Your task to perform on an android device: Open calendar and show me the second week of next month Image 0: 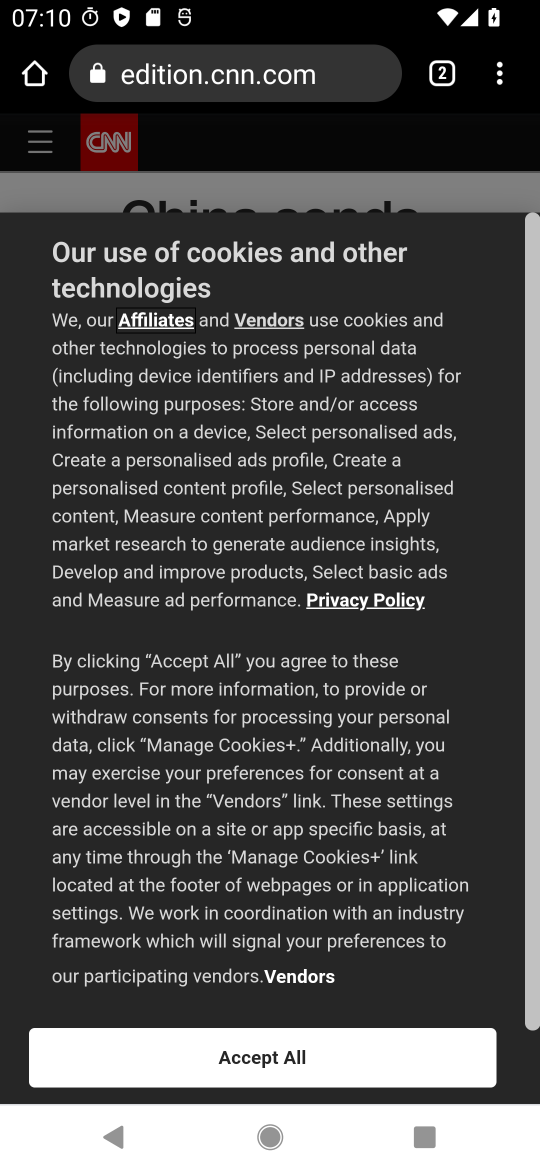
Step 0: press home button
Your task to perform on an android device: Open calendar and show me the second week of next month Image 1: 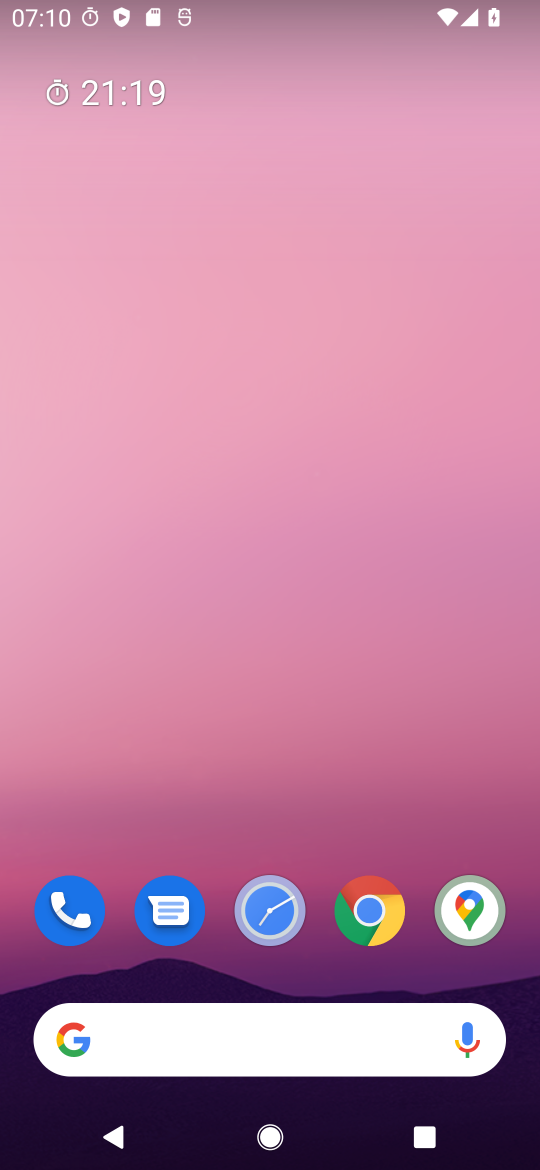
Step 1: drag from (271, 1062) to (374, 7)
Your task to perform on an android device: Open calendar and show me the second week of next month Image 2: 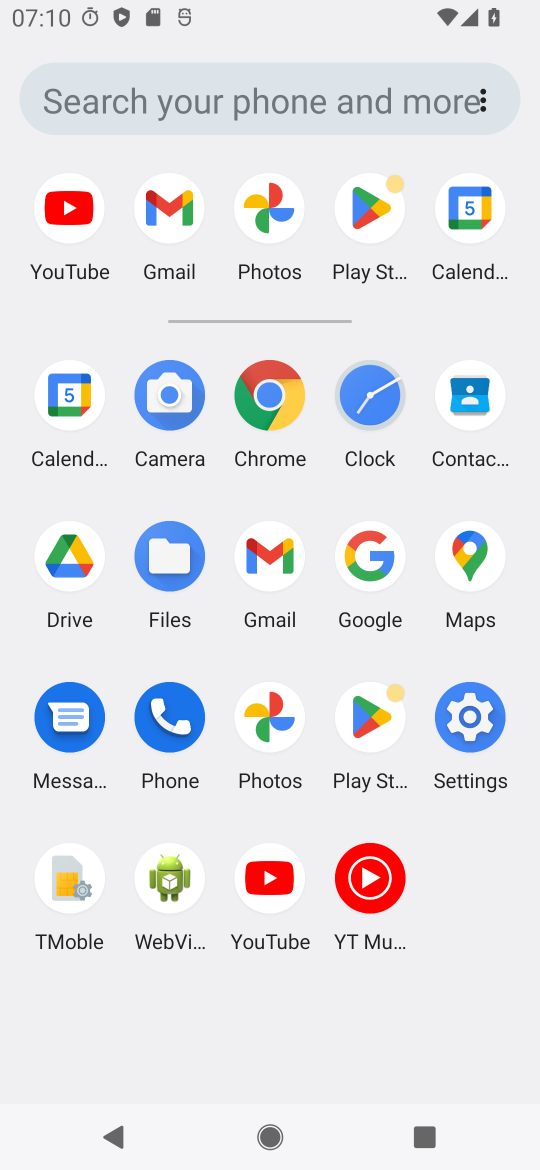
Step 2: click (464, 218)
Your task to perform on an android device: Open calendar and show me the second week of next month Image 3: 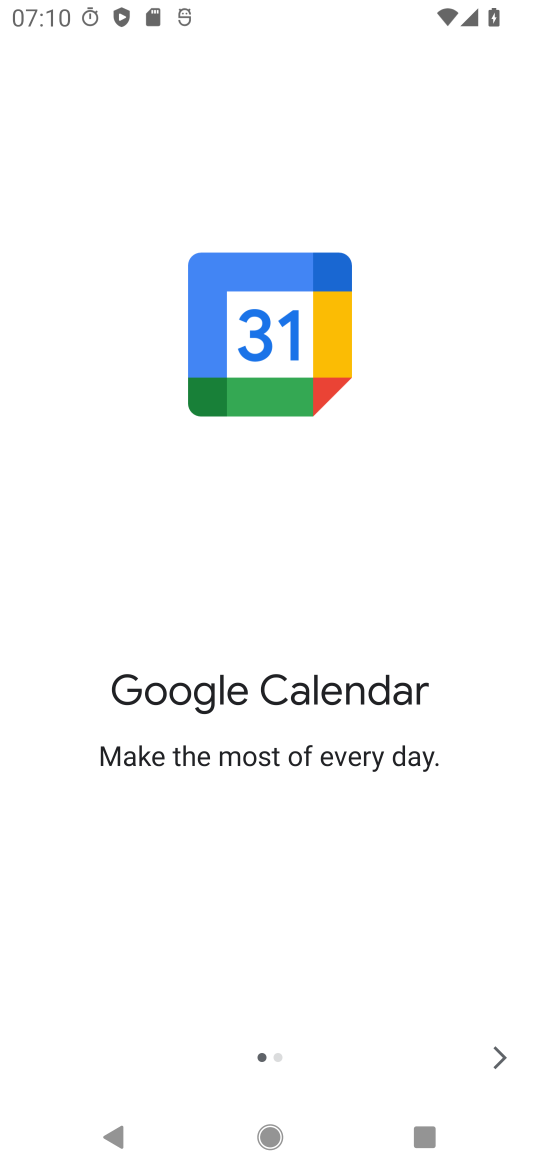
Step 3: click (505, 1051)
Your task to perform on an android device: Open calendar and show me the second week of next month Image 4: 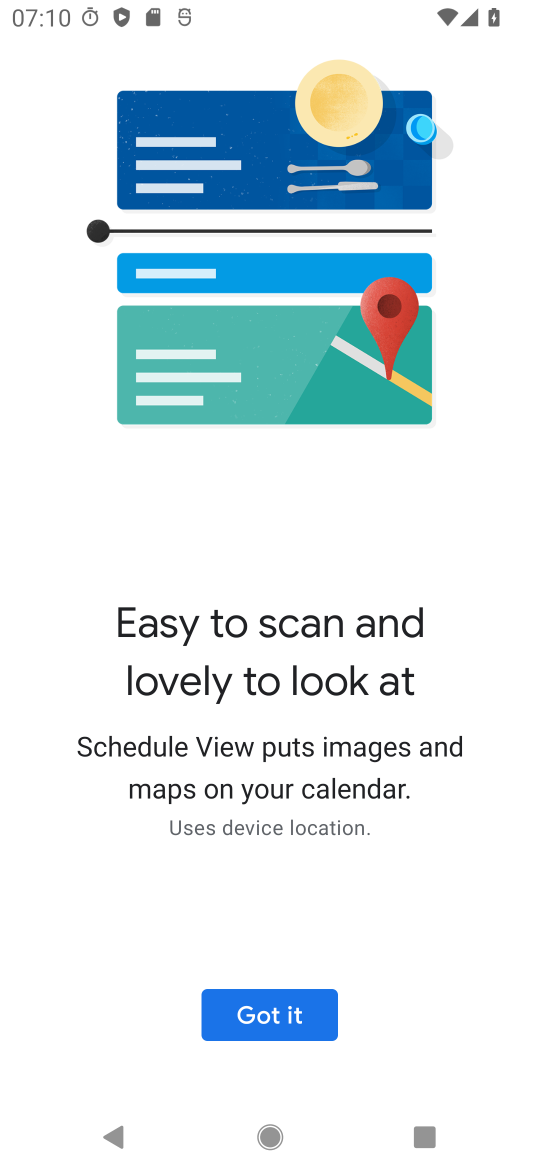
Step 4: click (294, 1007)
Your task to perform on an android device: Open calendar and show me the second week of next month Image 5: 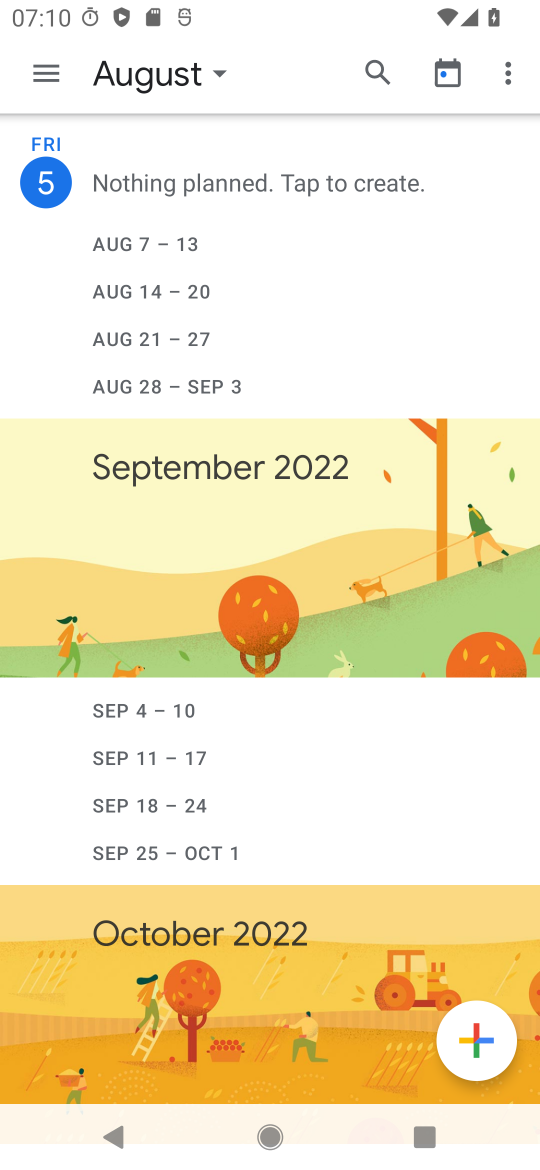
Step 5: click (205, 75)
Your task to perform on an android device: Open calendar and show me the second week of next month Image 6: 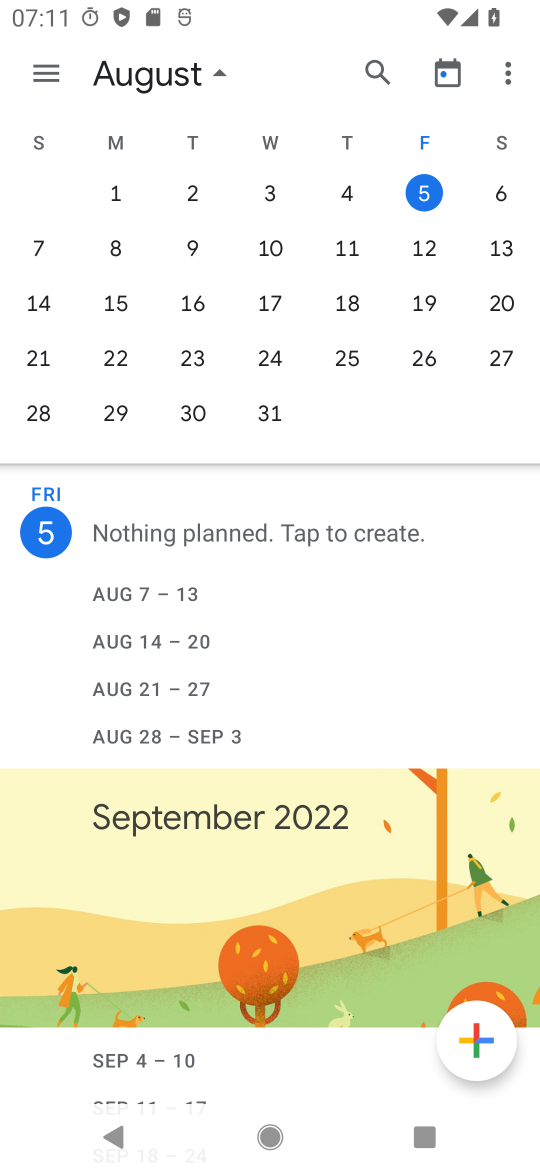
Step 6: drag from (495, 340) to (62, 273)
Your task to perform on an android device: Open calendar and show me the second week of next month Image 7: 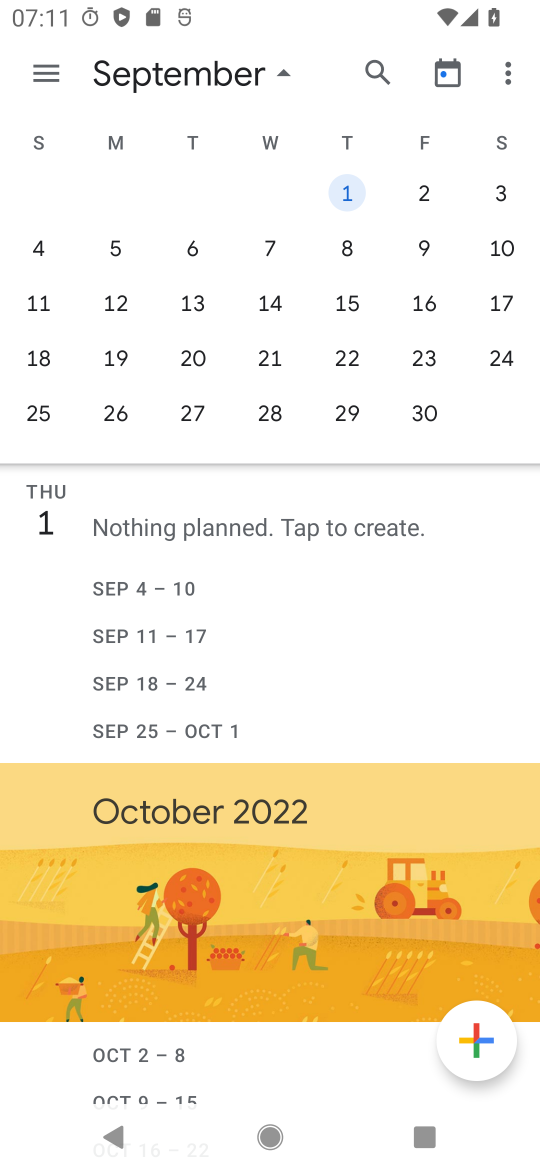
Step 7: click (268, 246)
Your task to perform on an android device: Open calendar and show me the second week of next month Image 8: 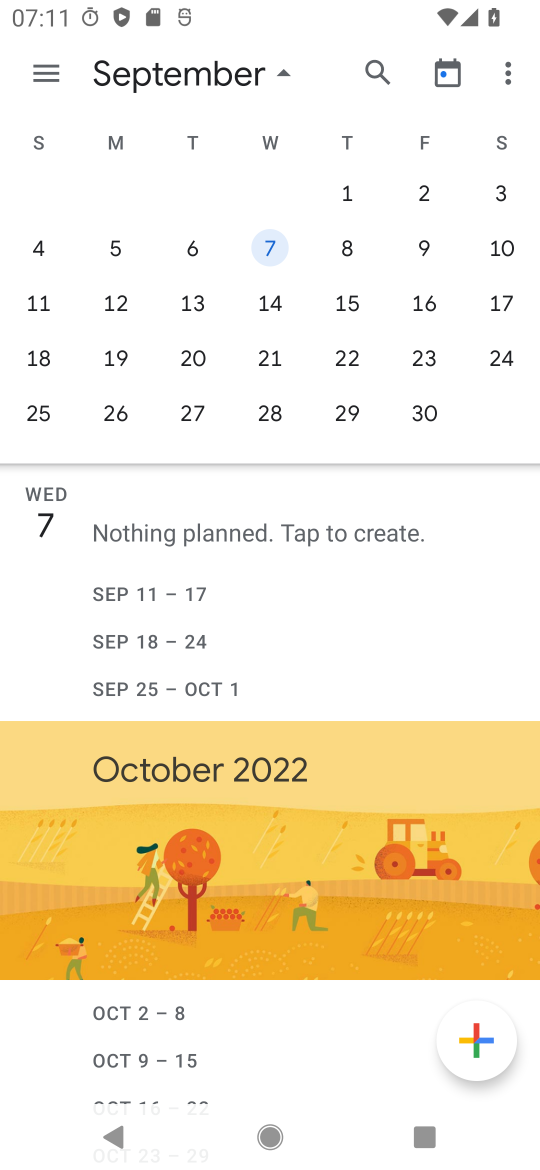
Step 8: task complete